Your task to perform on an android device: See recent photos Image 0: 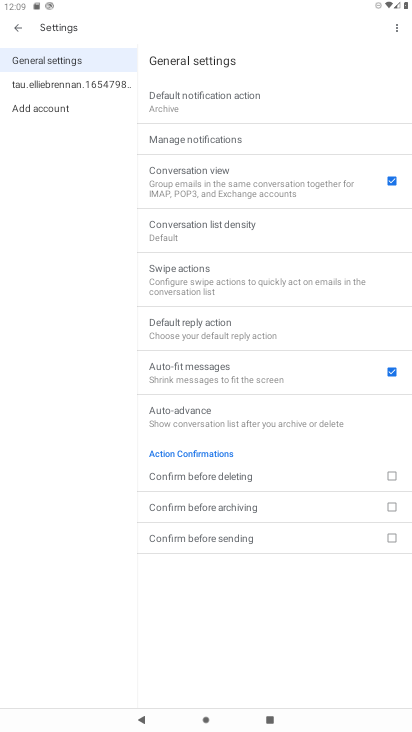
Step 0: press home button
Your task to perform on an android device: See recent photos Image 1: 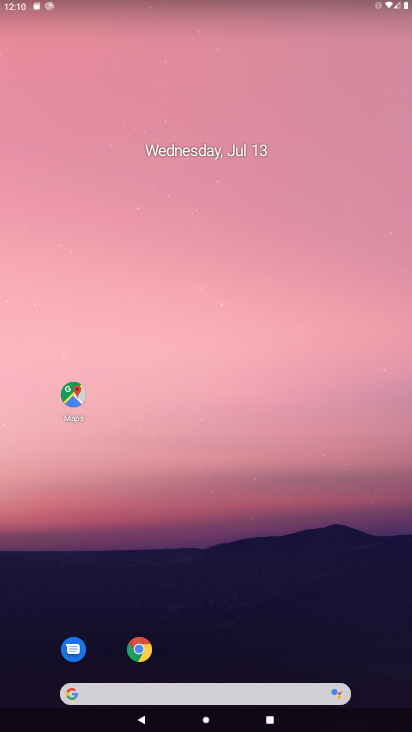
Step 1: drag from (392, 697) to (301, 160)
Your task to perform on an android device: See recent photos Image 2: 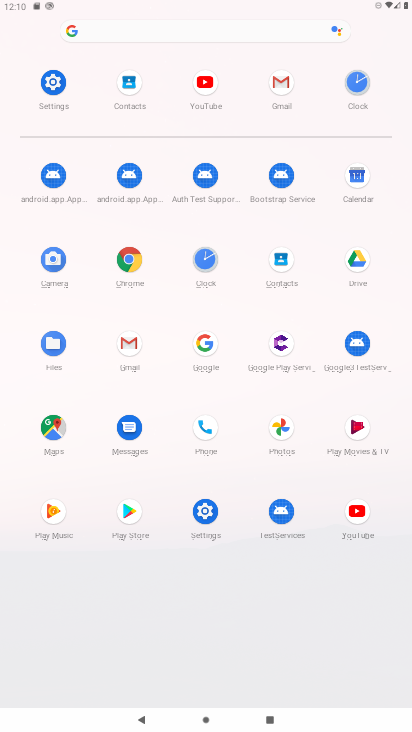
Step 2: click (281, 427)
Your task to perform on an android device: See recent photos Image 3: 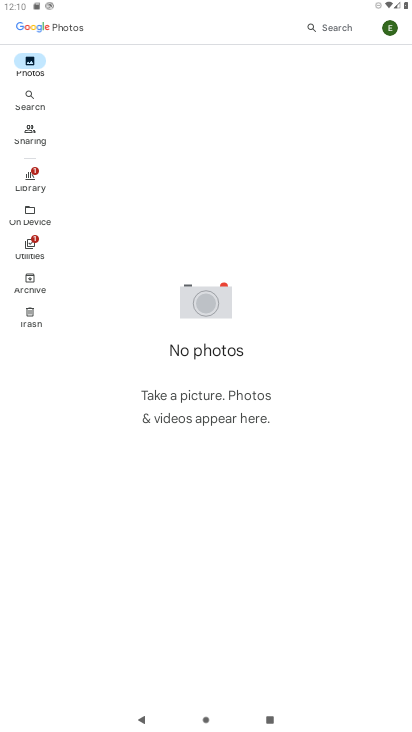
Step 3: task complete